Your task to perform on an android device: check out phone information Image 0: 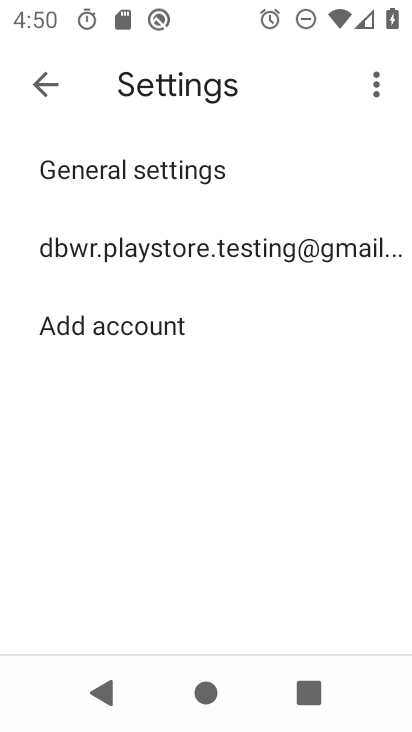
Step 0: press home button
Your task to perform on an android device: check out phone information Image 1: 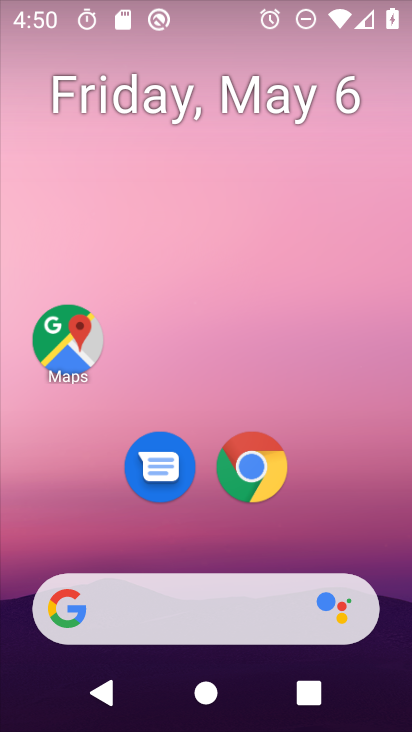
Step 1: drag from (316, 491) to (333, 49)
Your task to perform on an android device: check out phone information Image 2: 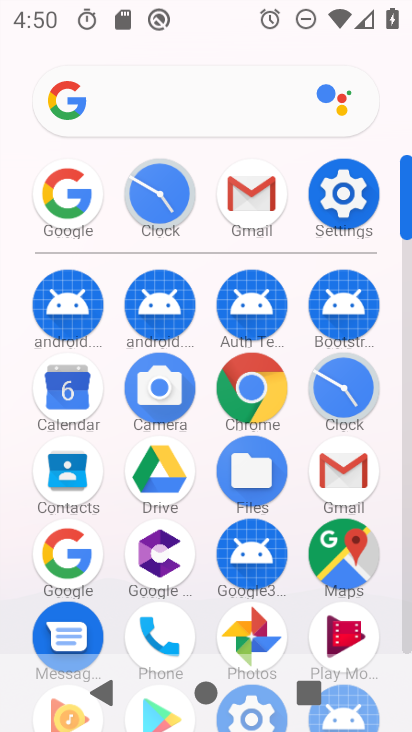
Step 2: click (361, 180)
Your task to perform on an android device: check out phone information Image 3: 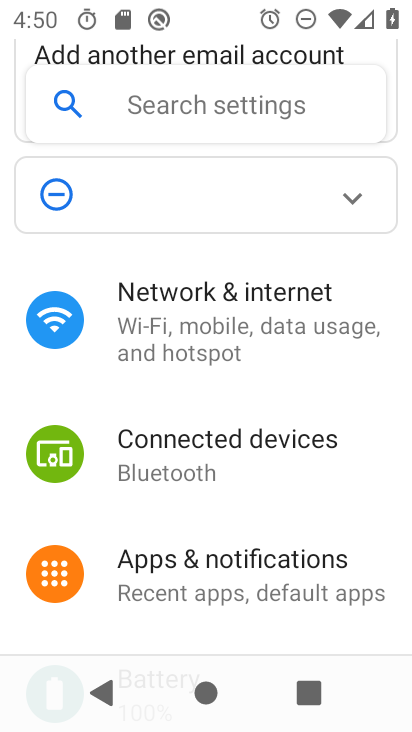
Step 3: drag from (234, 569) to (259, 98)
Your task to perform on an android device: check out phone information Image 4: 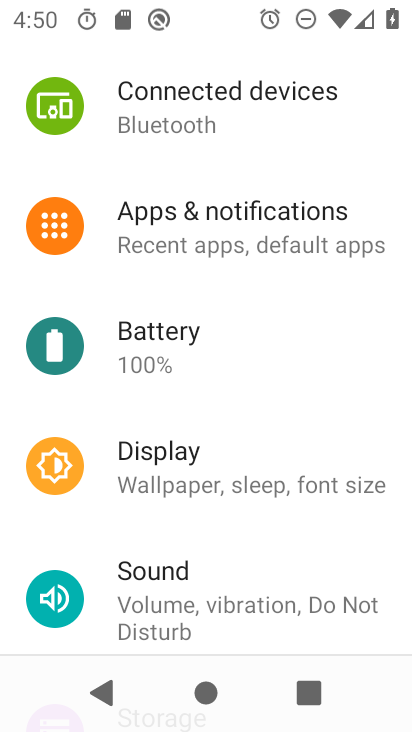
Step 4: drag from (218, 577) to (252, 134)
Your task to perform on an android device: check out phone information Image 5: 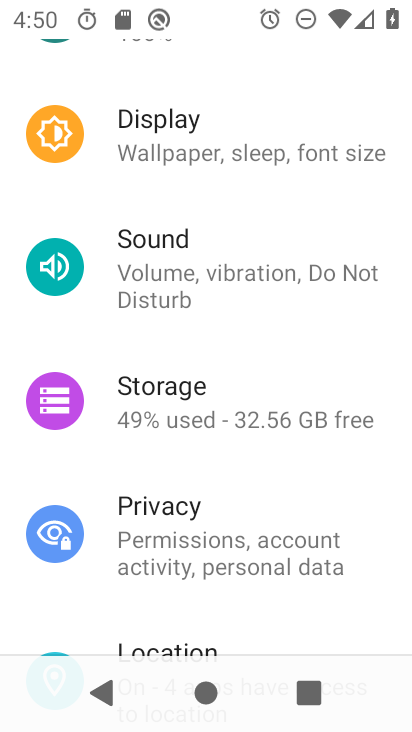
Step 5: drag from (204, 568) to (267, 48)
Your task to perform on an android device: check out phone information Image 6: 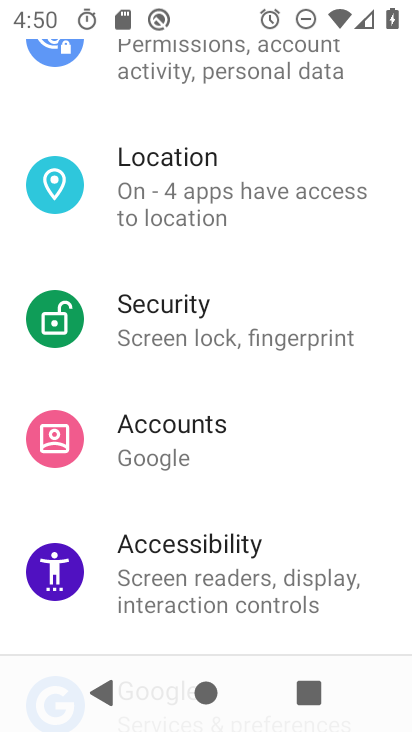
Step 6: drag from (191, 487) to (266, 44)
Your task to perform on an android device: check out phone information Image 7: 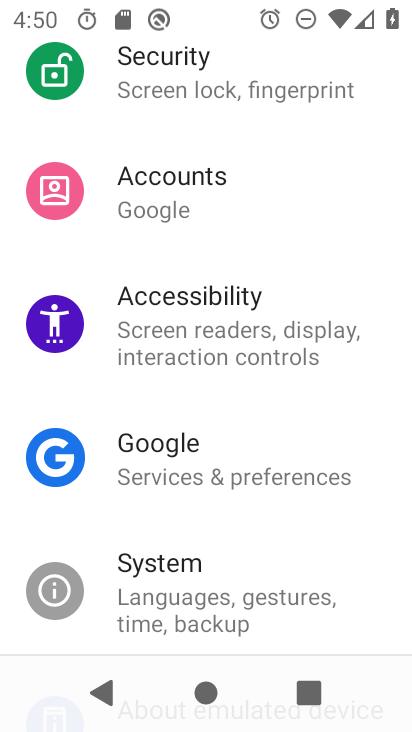
Step 7: drag from (214, 523) to (297, 111)
Your task to perform on an android device: check out phone information Image 8: 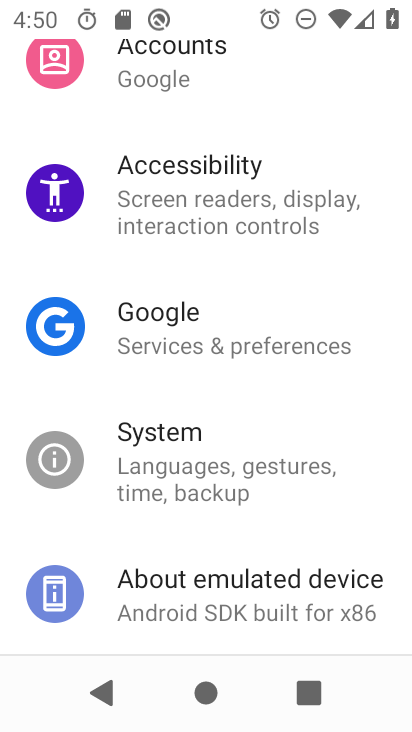
Step 8: click (205, 596)
Your task to perform on an android device: check out phone information Image 9: 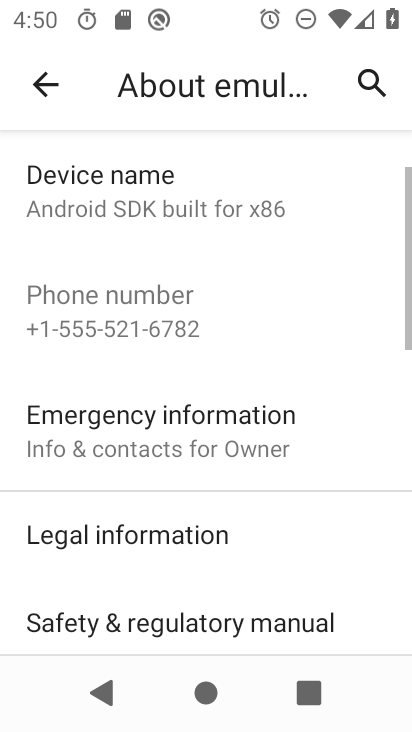
Step 9: task complete